Your task to perform on an android device: What is the capital of Switzerland? Image 0: 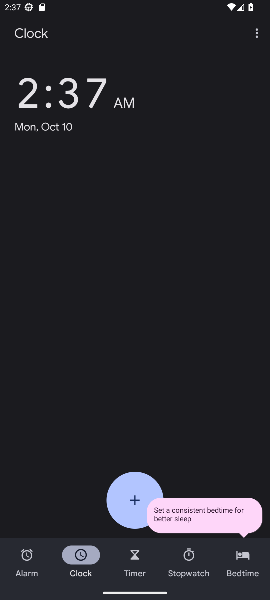
Step 0: press home button
Your task to perform on an android device: What is the capital of Switzerland? Image 1: 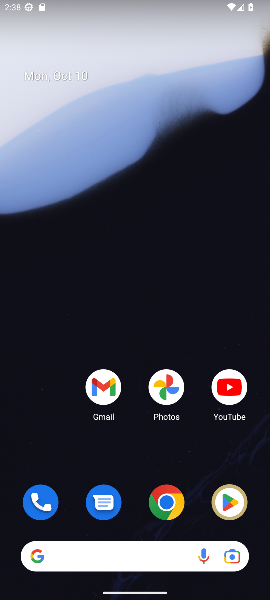
Step 1: click (157, 496)
Your task to perform on an android device: What is the capital of Switzerland? Image 2: 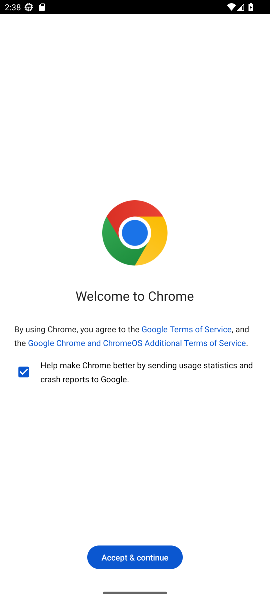
Step 2: click (145, 560)
Your task to perform on an android device: What is the capital of Switzerland? Image 3: 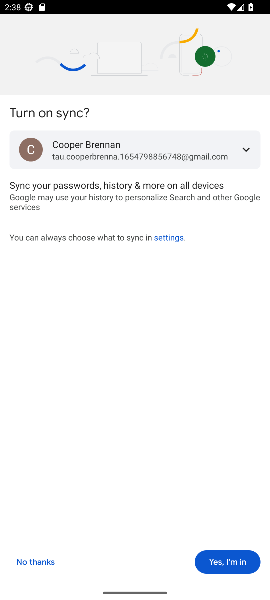
Step 3: click (210, 569)
Your task to perform on an android device: What is the capital of Switzerland? Image 4: 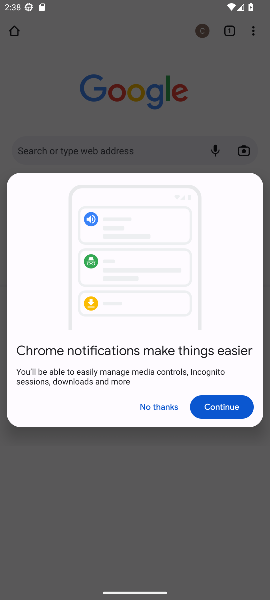
Step 4: click (218, 403)
Your task to perform on an android device: What is the capital of Switzerland? Image 5: 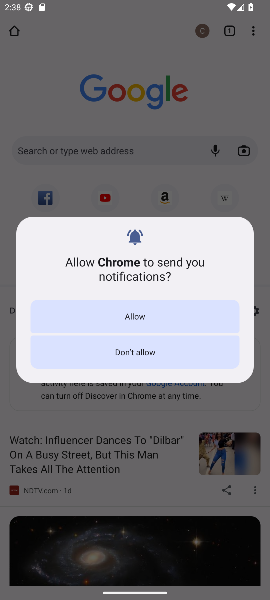
Step 5: click (180, 322)
Your task to perform on an android device: What is the capital of Switzerland? Image 6: 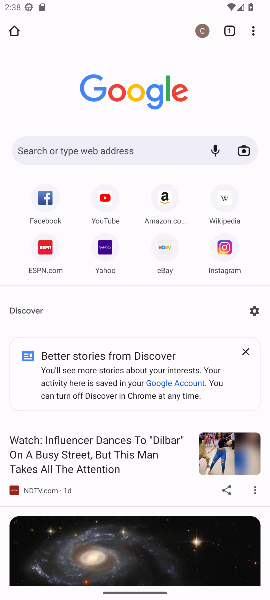
Step 6: click (142, 151)
Your task to perform on an android device: What is the capital of Switzerland? Image 7: 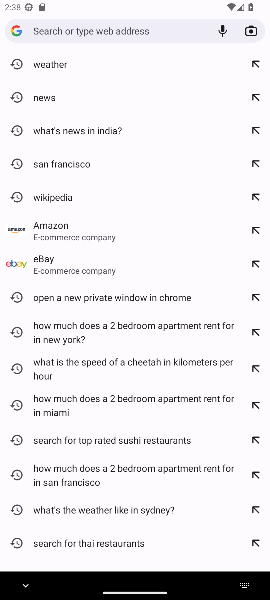
Step 7: type "capital of switzerland ?"
Your task to perform on an android device: What is the capital of Switzerland? Image 8: 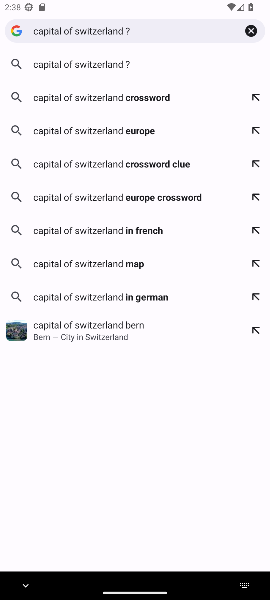
Step 8: click (83, 67)
Your task to perform on an android device: What is the capital of Switzerland? Image 9: 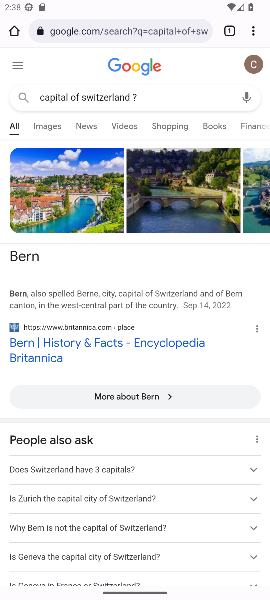
Step 9: task complete